Your task to perform on an android device: Open privacy settings Image 0: 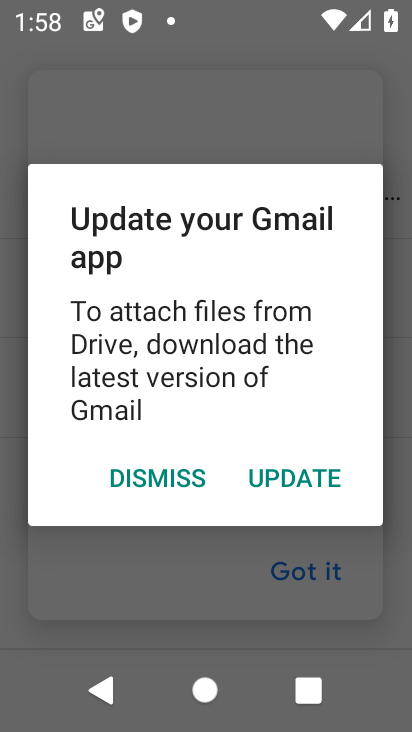
Step 0: press home button
Your task to perform on an android device: Open privacy settings Image 1: 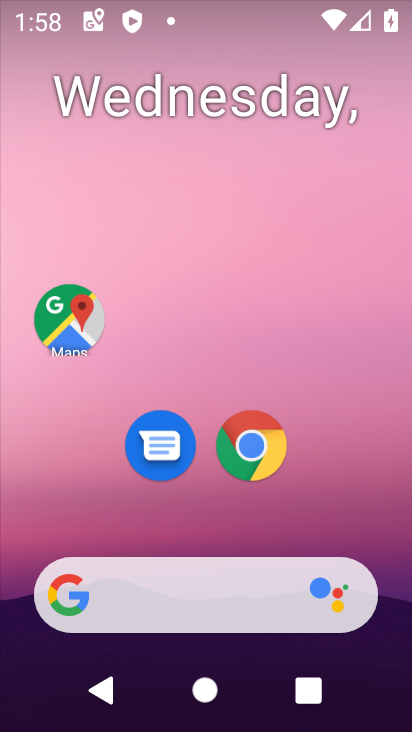
Step 1: drag from (191, 526) to (207, 187)
Your task to perform on an android device: Open privacy settings Image 2: 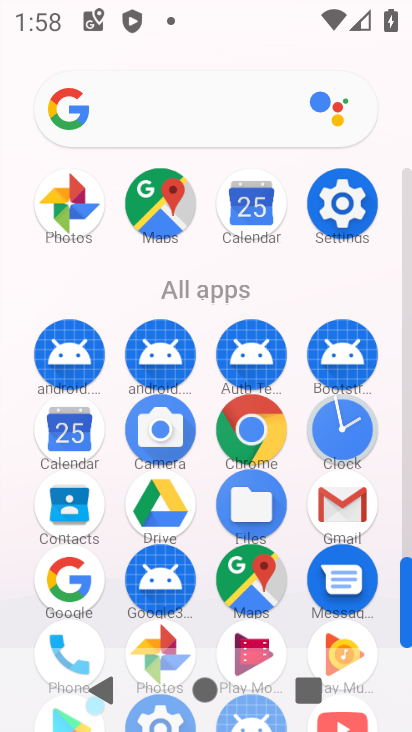
Step 2: click (337, 213)
Your task to perform on an android device: Open privacy settings Image 3: 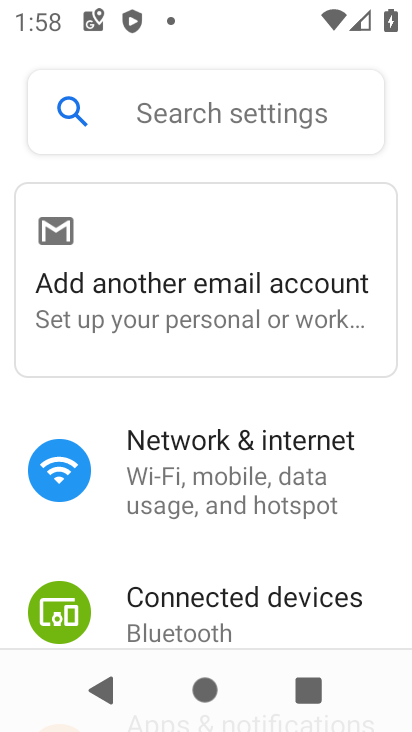
Step 3: drag from (229, 584) to (308, 208)
Your task to perform on an android device: Open privacy settings Image 4: 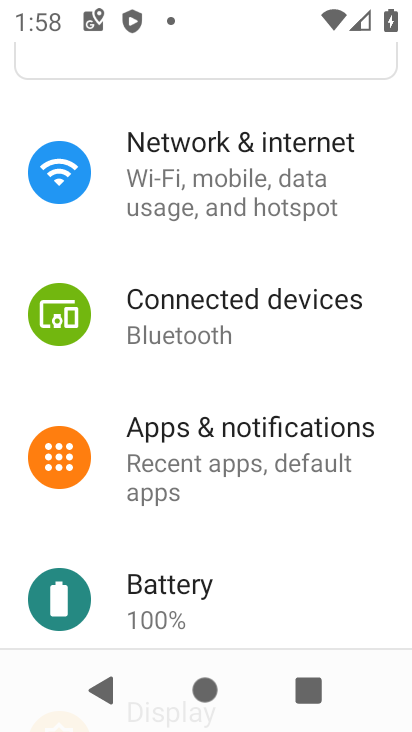
Step 4: drag from (255, 550) to (282, 165)
Your task to perform on an android device: Open privacy settings Image 5: 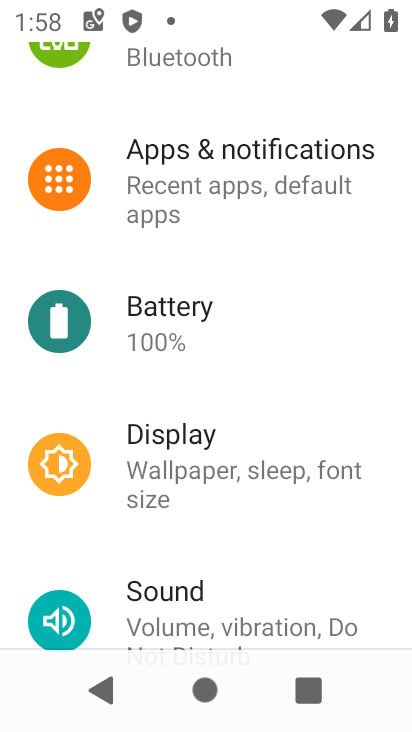
Step 5: drag from (224, 561) to (276, 204)
Your task to perform on an android device: Open privacy settings Image 6: 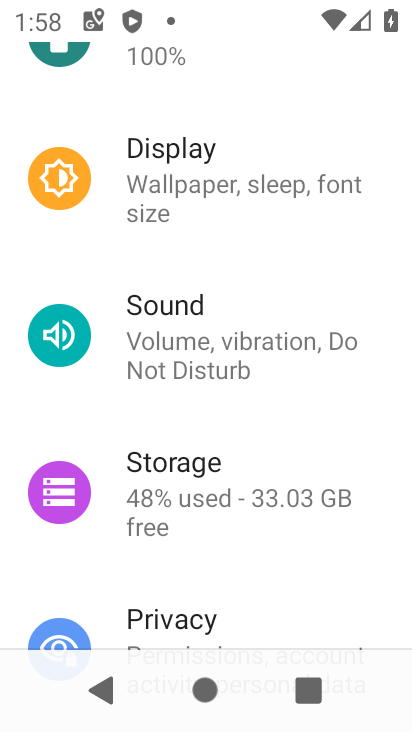
Step 6: click (207, 606)
Your task to perform on an android device: Open privacy settings Image 7: 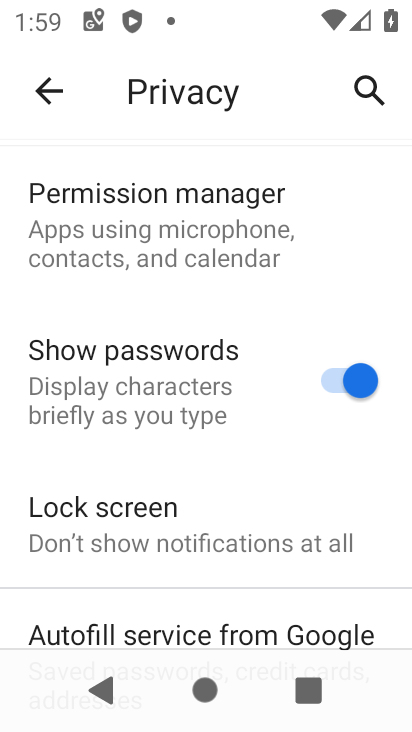
Step 7: task complete